Your task to perform on an android device: Open Chrome and go to settings Image 0: 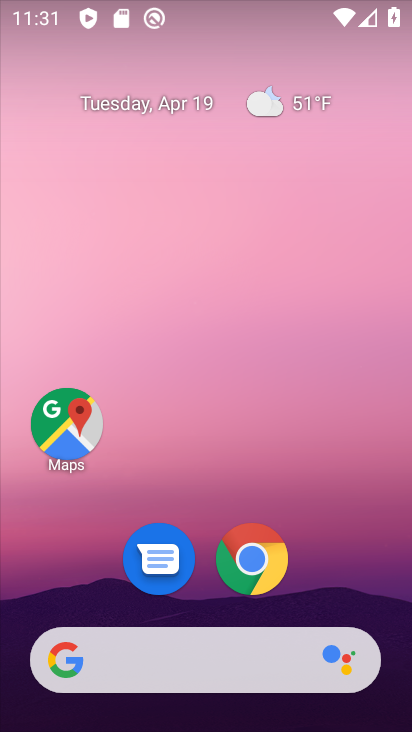
Step 0: click (262, 549)
Your task to perform on an android device: Open Chrome and go to settings Image 1: 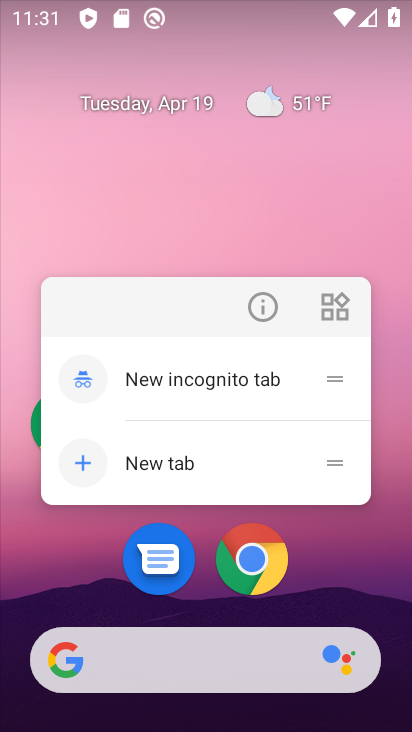
Step 1: click (252, 569)
Your task to perform on an android device: Open Chrome and go to settings Image 2: 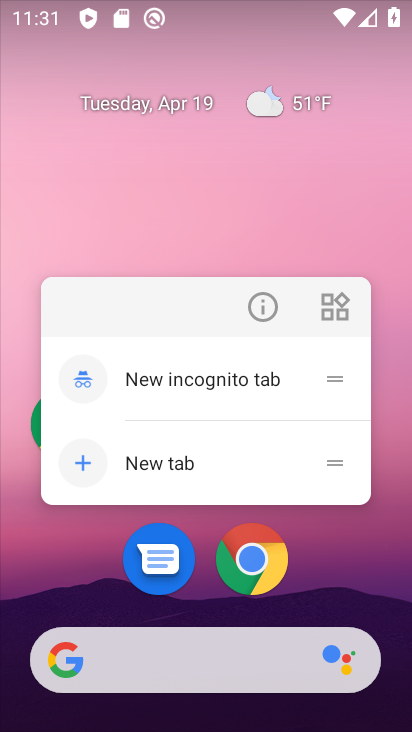
Step 2: click (260, 531)
Your task to perform on an android device: Open Chrome and go to settings Image 3: 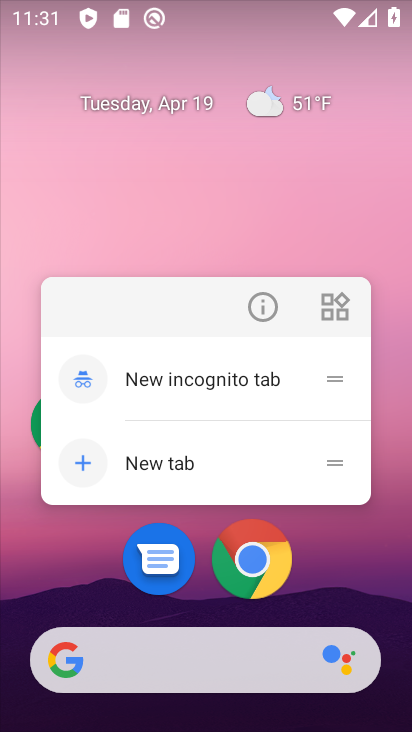
Step 3: drag from (244, 566) to (207, 560)
Your task to perform on an android device: Open Chrome and go to settings Image 4: 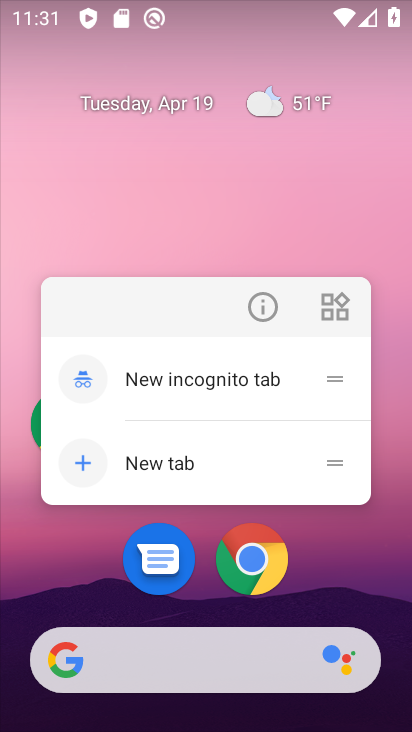
Step 4: drag from (253, 543) to (189, 500)
Your task to perform on an android device: Open Chrome and go to settings Image 5: 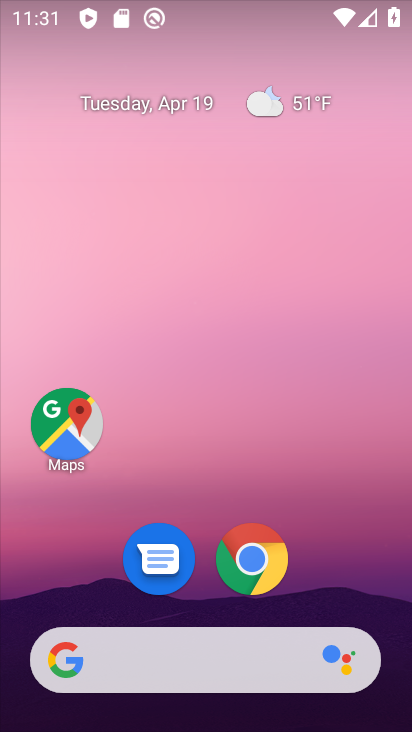
Step 5: drag from (274, 552) to (269, 393)
Your task to perform on an android device: Open Chrome and go to settings Image 6: 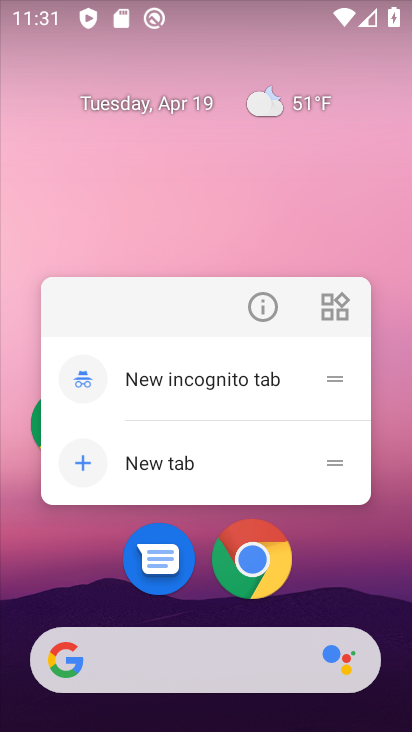
Step 6: click (259, 559)
Your task to perform on an android device: Open Chrome and go to settings Image 7: 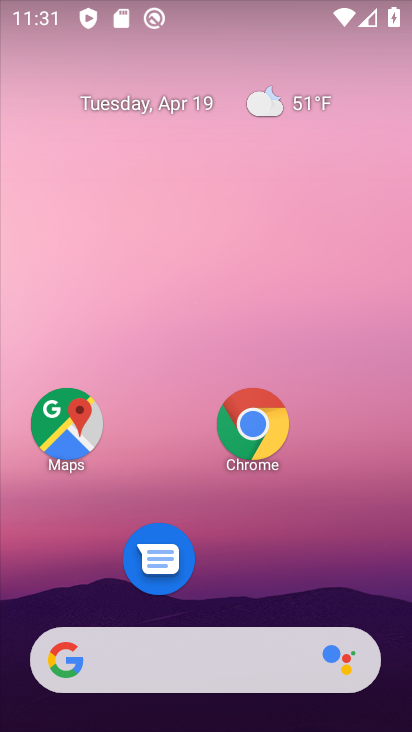
Step 7: click (135, 43)
Your task to perform on an android device: Open Chrome and go to settings Image 8: 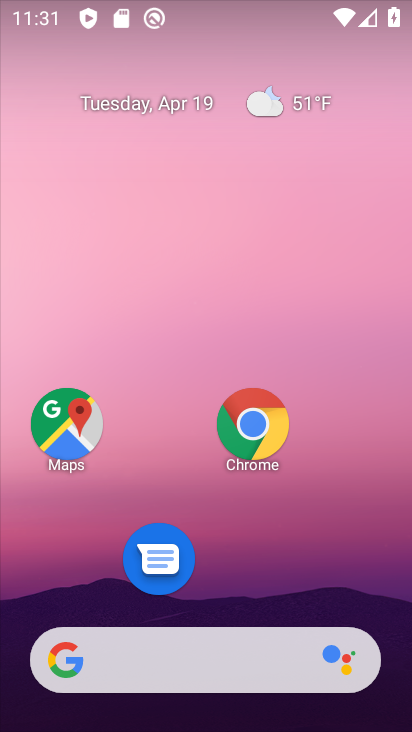
Step 8: drag from (285, 558) to (66, 77)
Your task to perform on an android device: Open Chrome and go to settings Image 9: 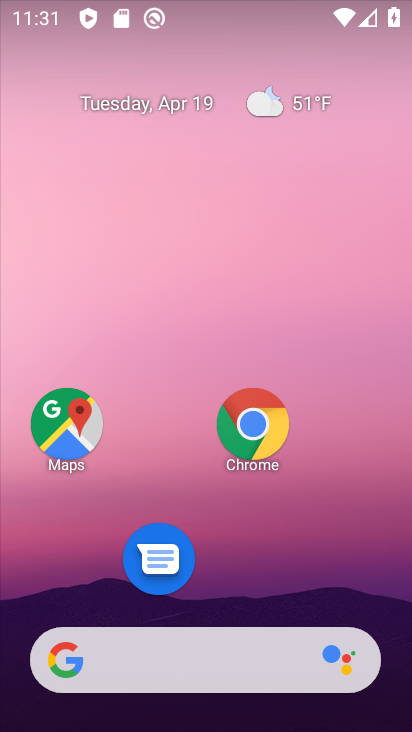
Step 9: click (245, 84)
Your task to perform on an android device: Open Chrome and go to settings Image 10: 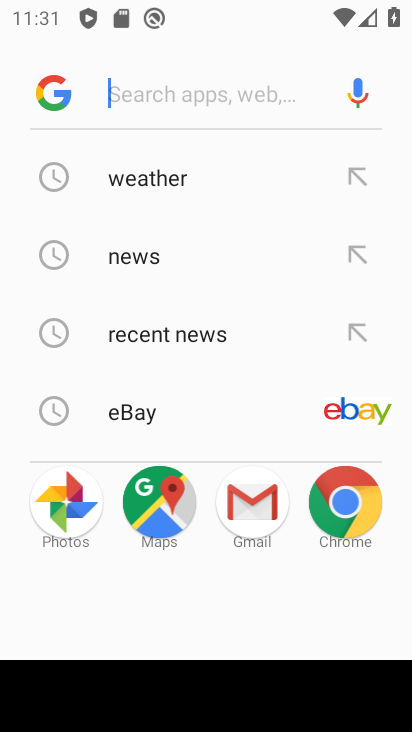
Step 10: press back button
Your task to perform on an android device: Open Chrome and go to settings Image 11: 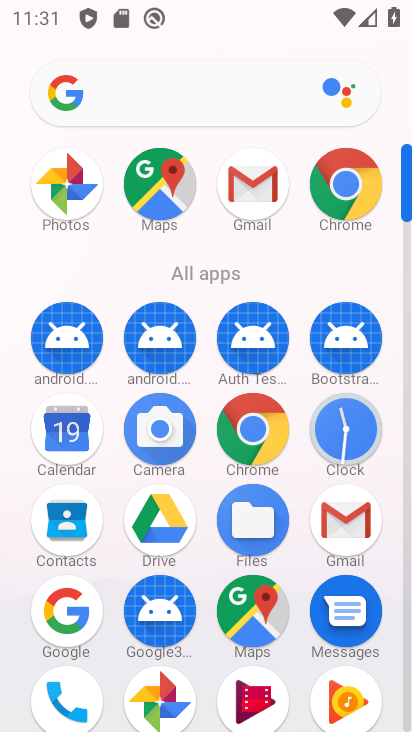
Step 11: click (358, 188)
Your task to perform on an android device: Open Chrome and go to settings Image 12: 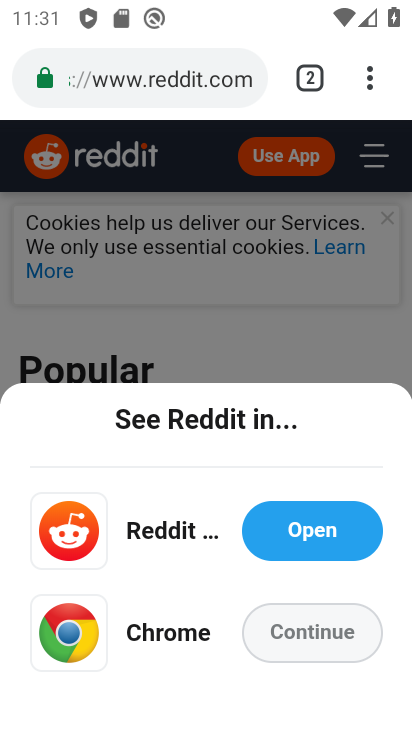
Step 12: drag from (363, 83) to (247, 548)
Your task to perform on an android device: Open Chrome and go to settings Image 13: 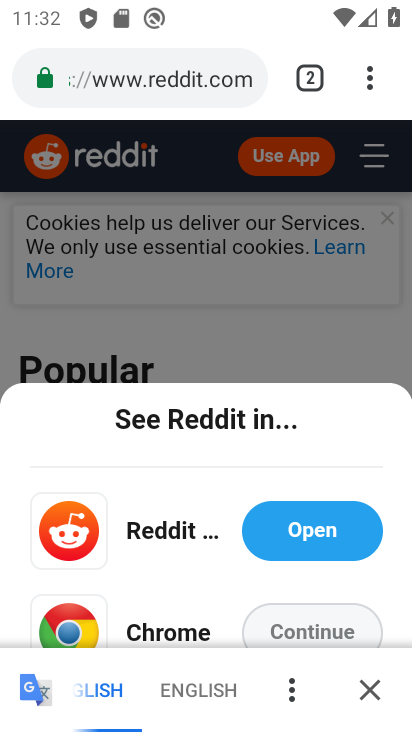
Step 13: drag from (366, 76) to (122, 208)
Your task to perform on an android device: Open Chrome and go to settings Image 14: 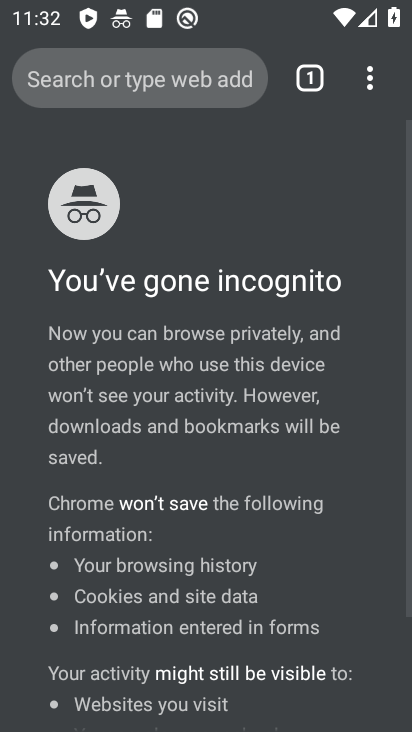
Step 14: drag from (202, 575) to (202, 209)
Your task to perform on an android device: Open Chrome and go to settings Image 15: 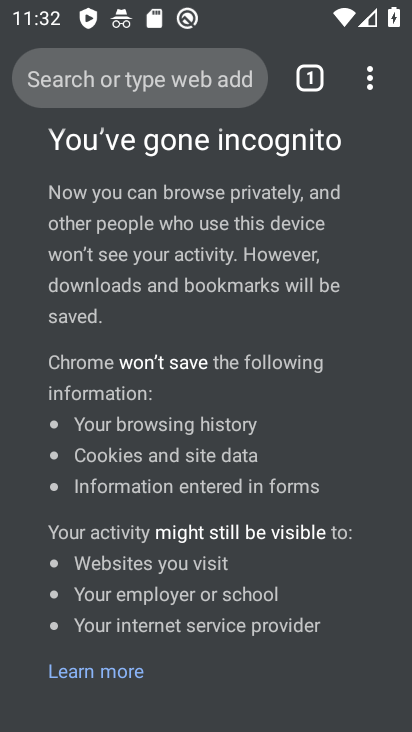
Step 15: drag from (365, 81) to (81, 583)
Your task to perform on an android device: Open Chrome and go to settings Image 16: 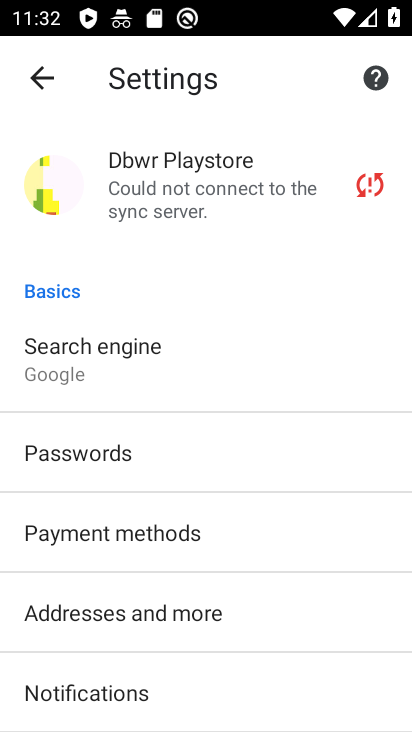
Step 16: drag from (126, 596) to (156, 309)
Your task to perform on an android device: Open Chrome and go to settings Image 17: 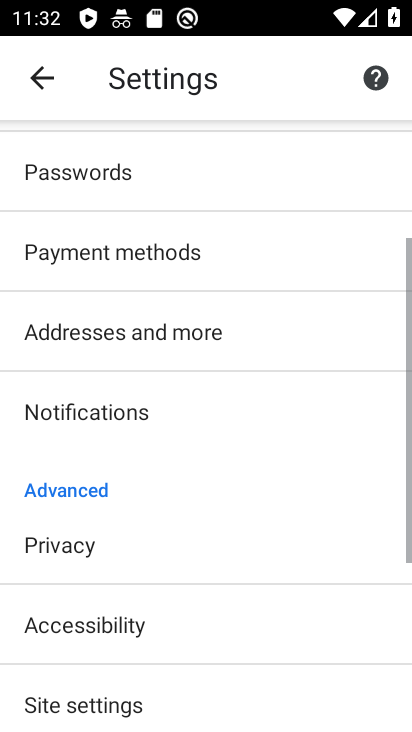
Step 17: drag from (146, 469) to (205, 182)
Your task to perform on an android device: Open Chrome and go to settings Image 18: 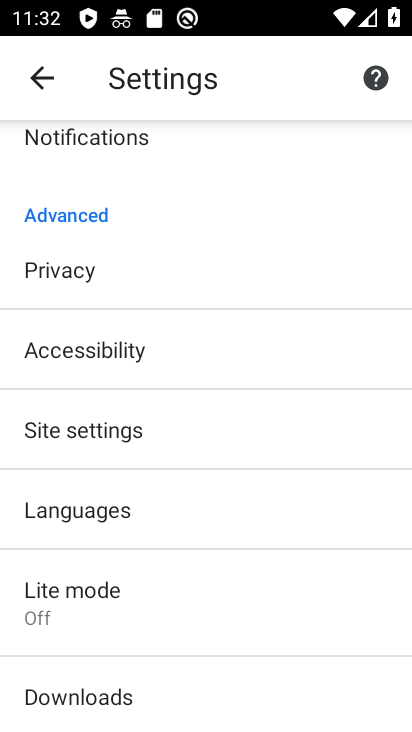
Step 18: click (63, 427)
Your task to perform on an android device: Open Chrome and go to settings Image 19: 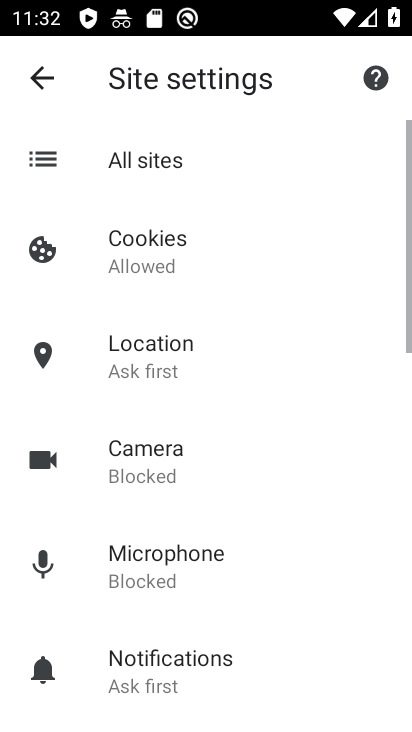
Step 19: click (63, 446)
Your task to perform on an android device: Open Chrome and go to settings Image 20: 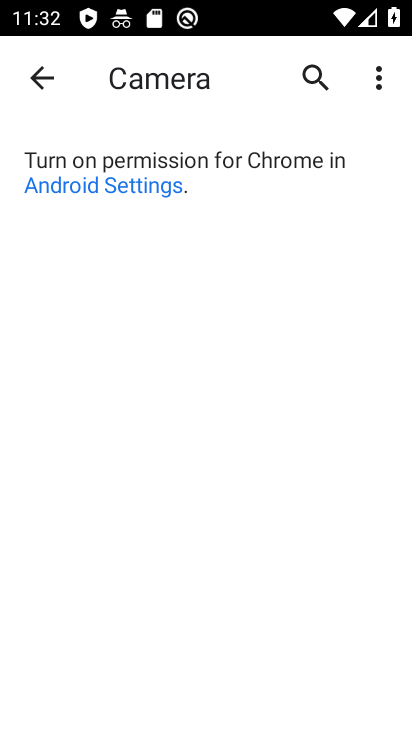
Step 20: task complete